Your task to perform on an android device: View the shopping cart on amazon.com. Add panasonic triple a to the cart on amazon.com, then select checkout. Image 0: 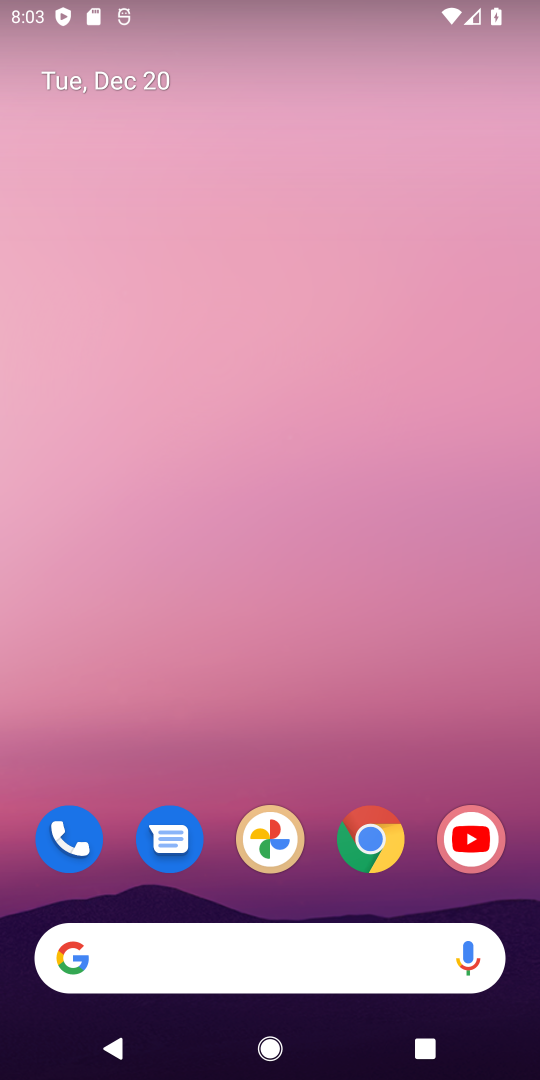
Step 0: click (296, 968)
Your task to perform on an android device: View the shopping cart on amazon.com. Add panasonic triple a to the cart on amazon.com, then select checkout. Image 1: 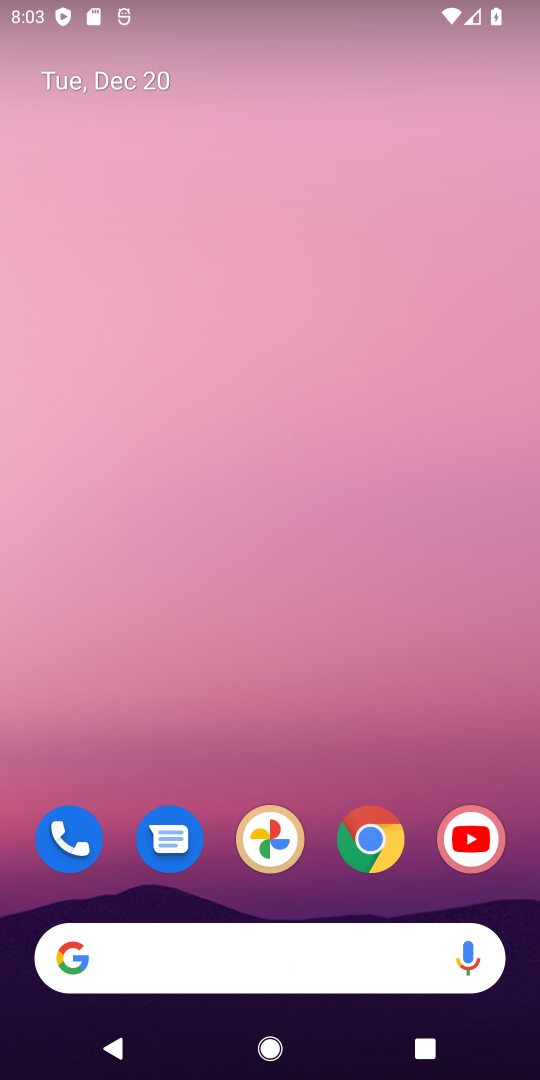
Step 1: click (289, 966)
Your task to perform on an android device: View the shopping cart on amazon.com. Add panasonic triple a to the cart on amazon.com, then select checkout. Image 2: 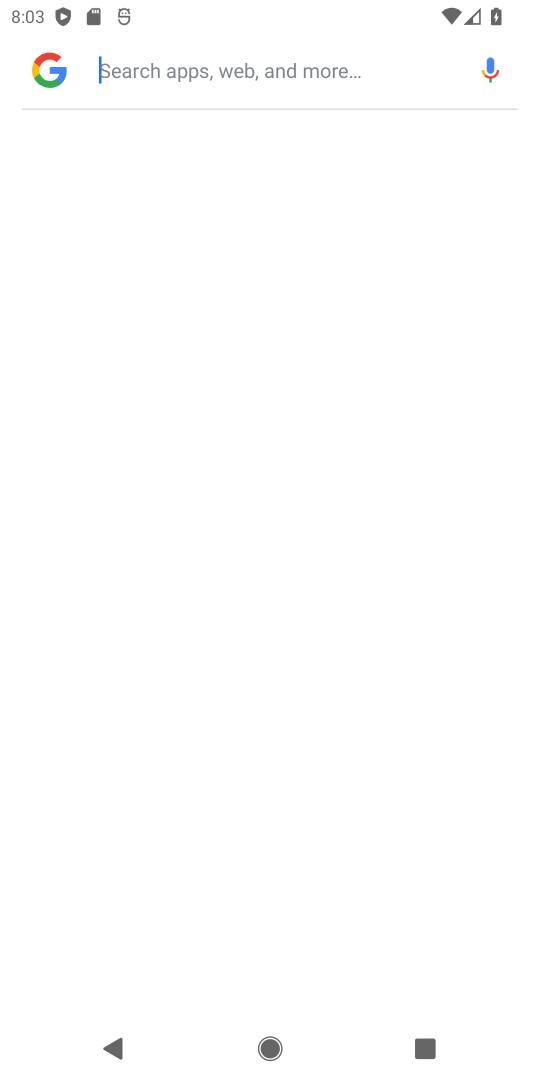
Step 2: click (289, 966)
Your task to perform on an android device: View the shopping cart on amazon.com. Add panasonic triple a to the cart on amazon.com, then select checkout. Image 3: 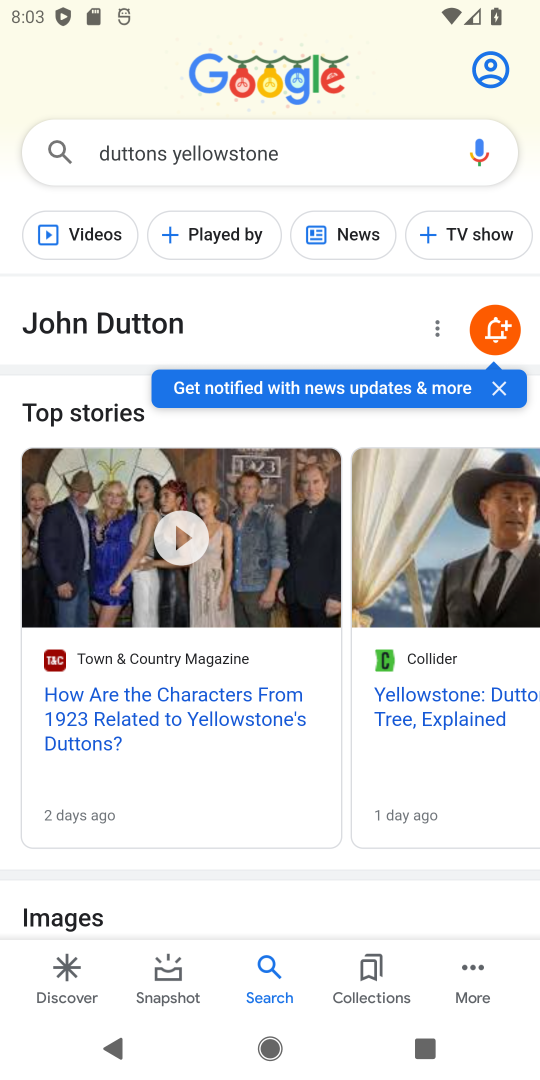
Step 3: type "amazon.com"
Your task to perform on an android device: View the shopping cart on amazon.com. Add panasonic triple a to the cart on amazon.com, then select checkout. Image 4: 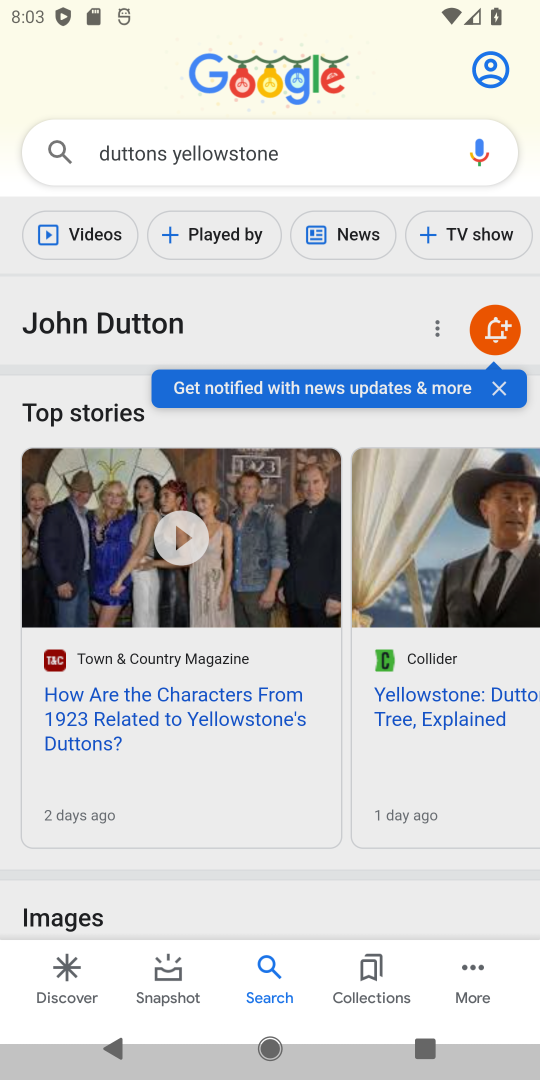
Step 4: type ""
Your task to perform on an android device: View the shopping cart on amazon.com. Add panasonic triple a to the cart on amazon.com, then select checkout. Image 5: 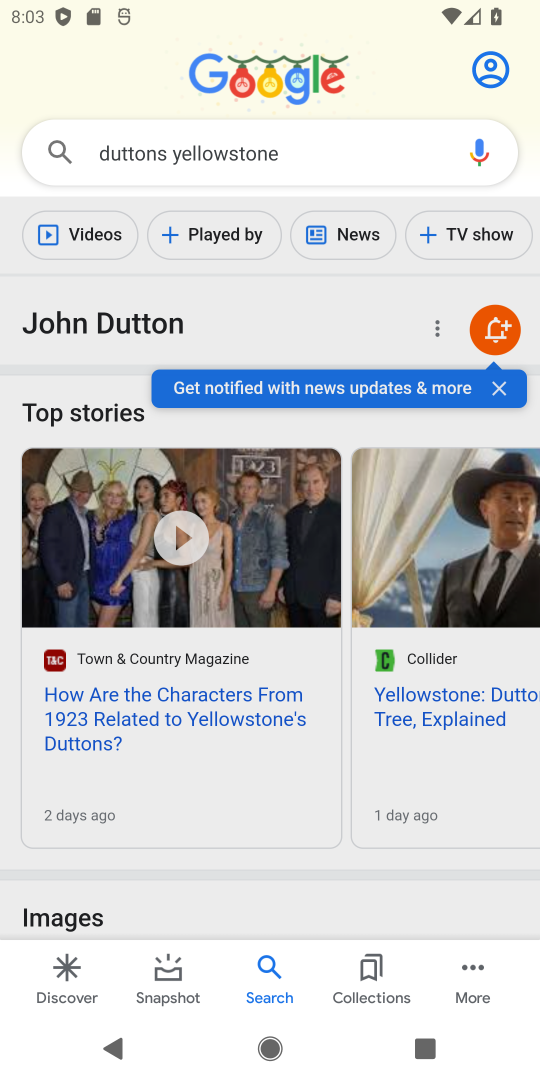
Step 5: click (342, 166)
Your task to perform on an android device: View the shopping cart on amazon.com. Add panasonic triple a to the cart on amazon.com, then select checkout. Image 6: 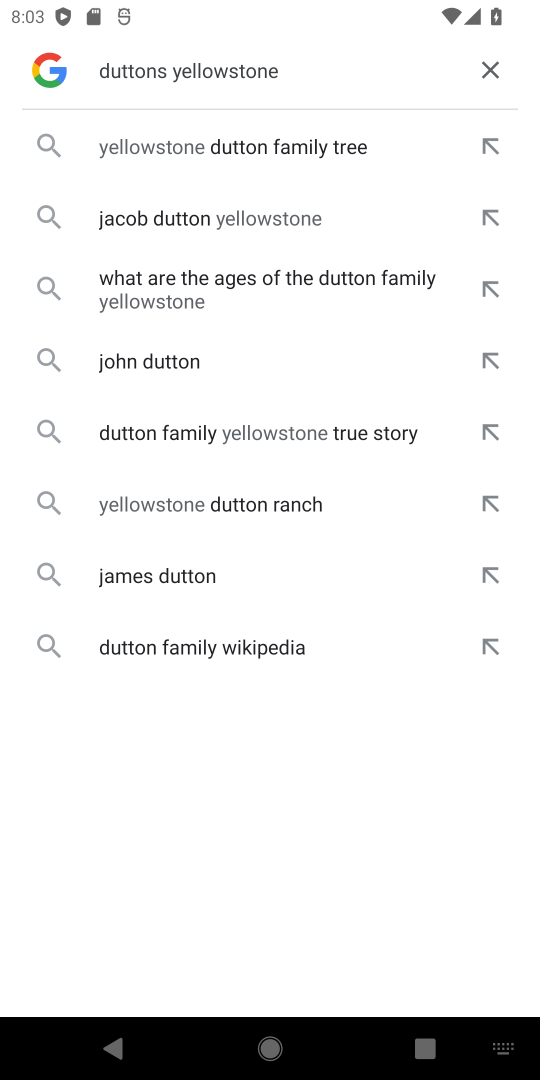
Step 6: click (492, 81)
Your task to perform on an android device: View the shopping cart on amazon.com. Add panasonic triple a to the cart on amazon.com, then select checkout. Image 7: 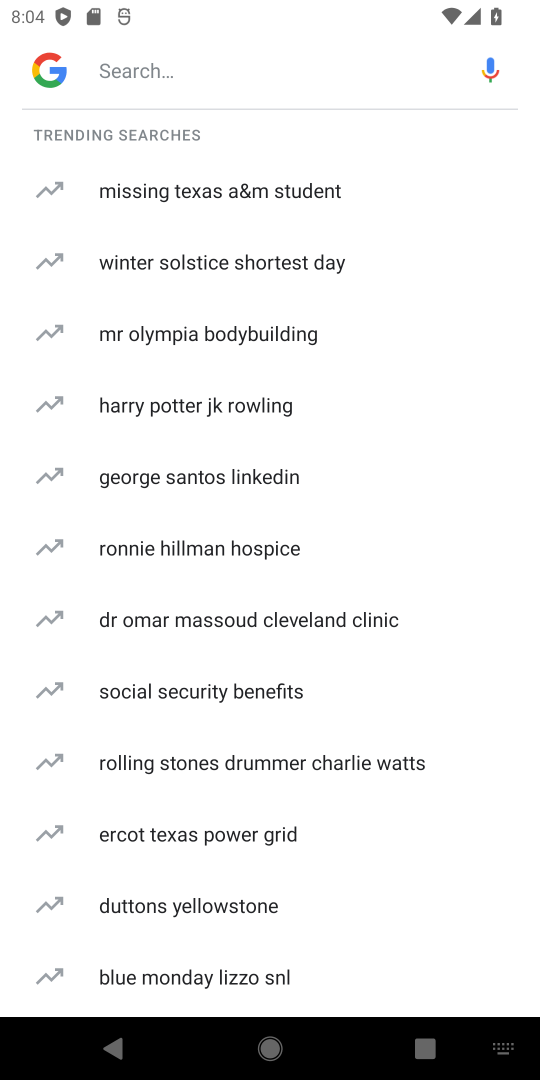
Step 7: type "amazon.com"
Your task to perform on an android device: View the shopping cart on amazon.com. Add panasonic triple a to the cart on amazon.com, then select checkout. Image 8: 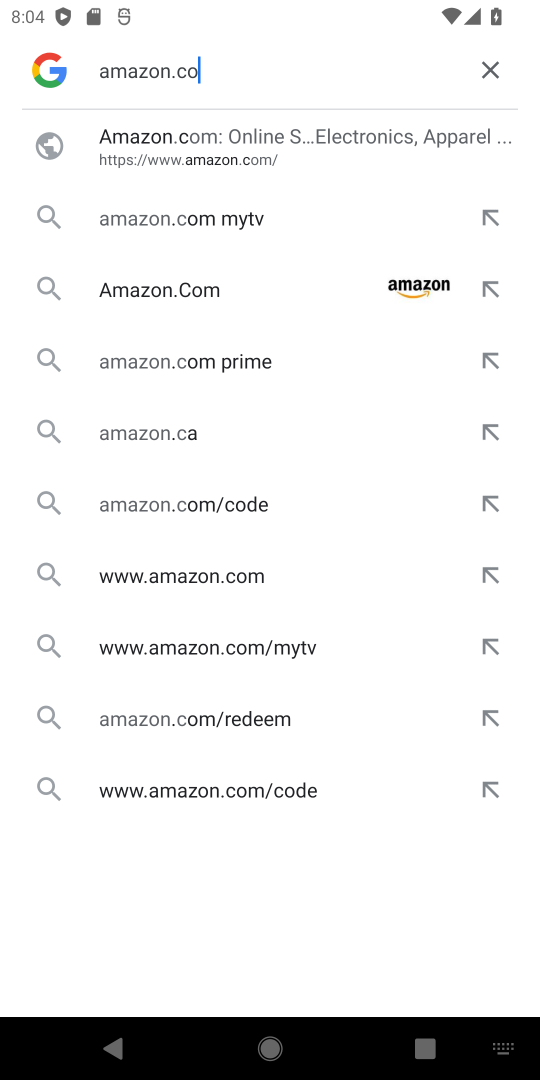
Step 8: type ""
Your task to perform on an android device: View the shopping cart on amazon.com. Add panasonic triple a to the cart on amazon.com, then select checkout. Image 9: 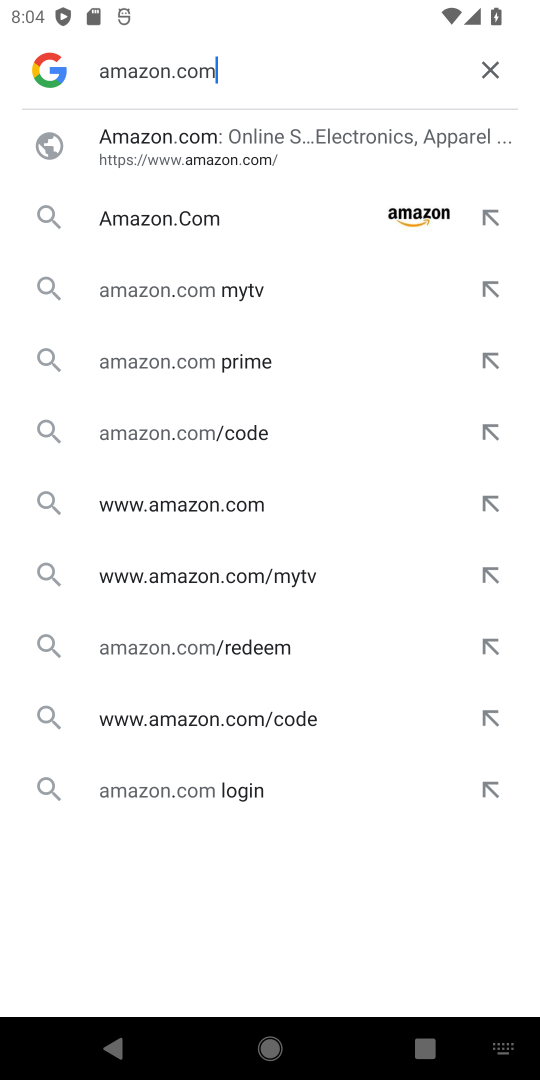
Step 9: click (171, 225)
Your task to perform on an android device: View the shopping cart on amazon.com. Add panasonic triple a to the cart on amazon.com, then select checkout. Image 10: 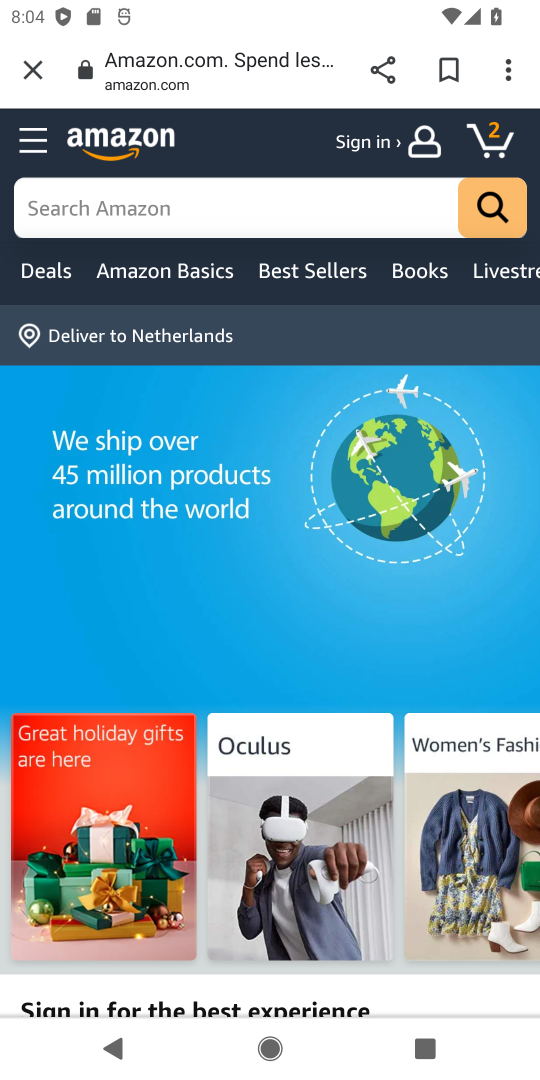
Step 10: drag from (226, 1073) to (467, 752)
Your task to perform on an android device: View the shopping cart on amazon.com. Add panasonic triple a to the cart on amazon.com, then select checkout. Image 11: 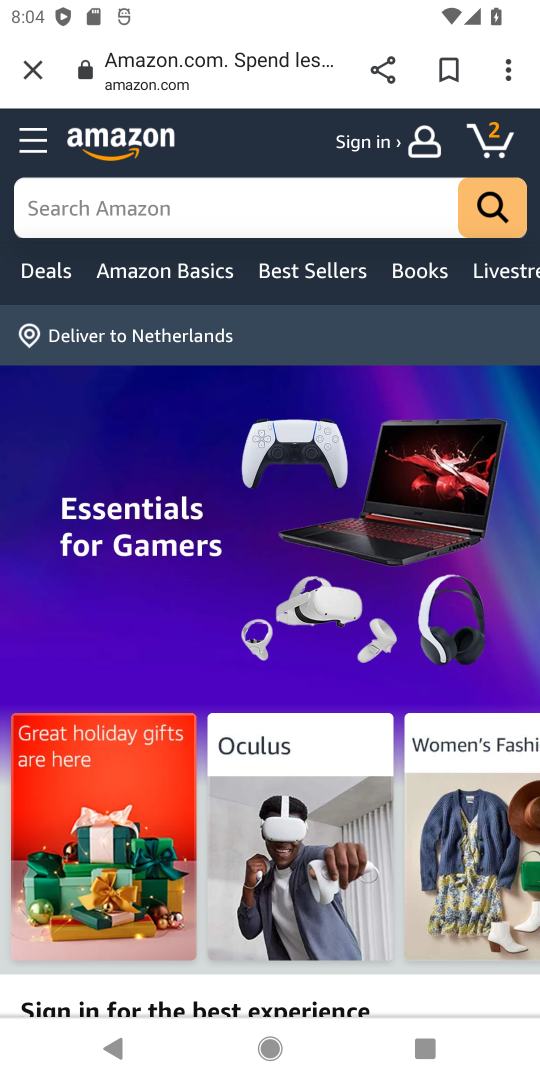
Step 11: click (275, 532)
Your task to perform on an android device: View the shopping cart on amazon.com. Add panasonic triple a to the cart on amazon.com, then select checkout. Image 12: 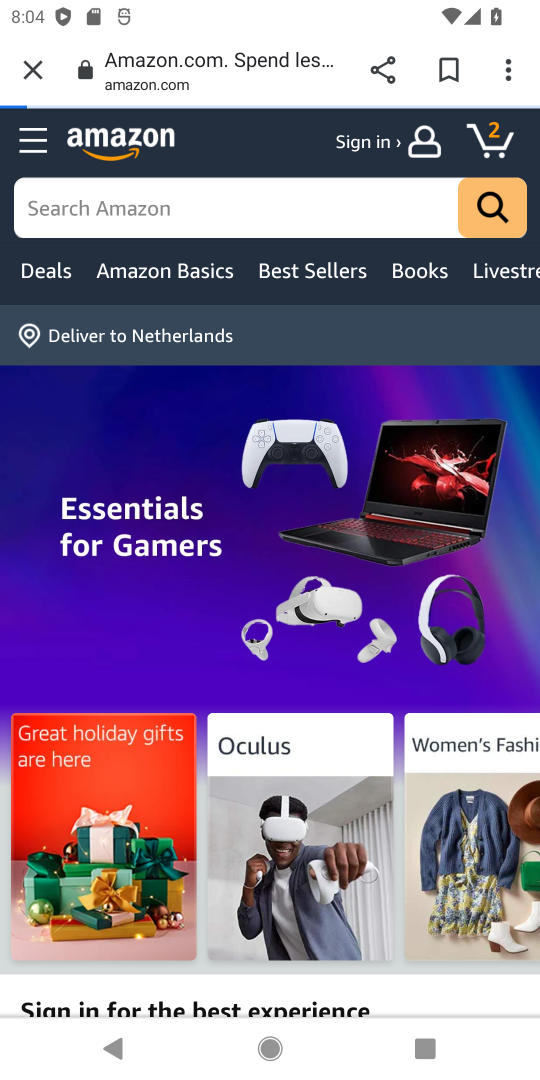
Step 12: click (135, 209)
Your task to perform on an android device: View the shopping cart on amazon.com. Add panasonic triple a to the cart on amazon.com, then select checkout. Image 13: 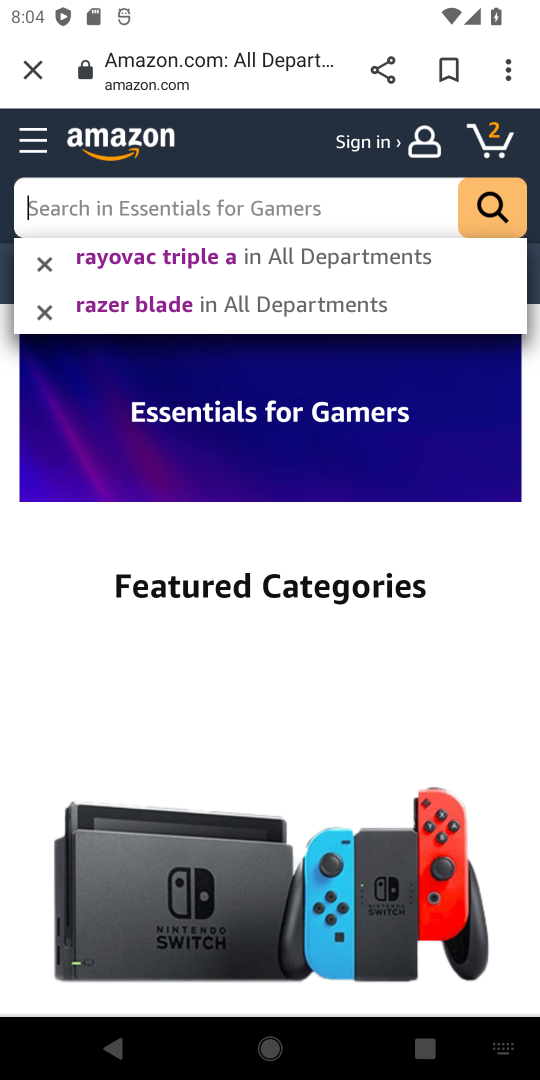
Step 13: type "panasonic triple a"
Your task to perform on an android device: View the shopping cart on amazon.com. Add panasonic triple a to the cart on amazon.com, then select checkout. Image 14: 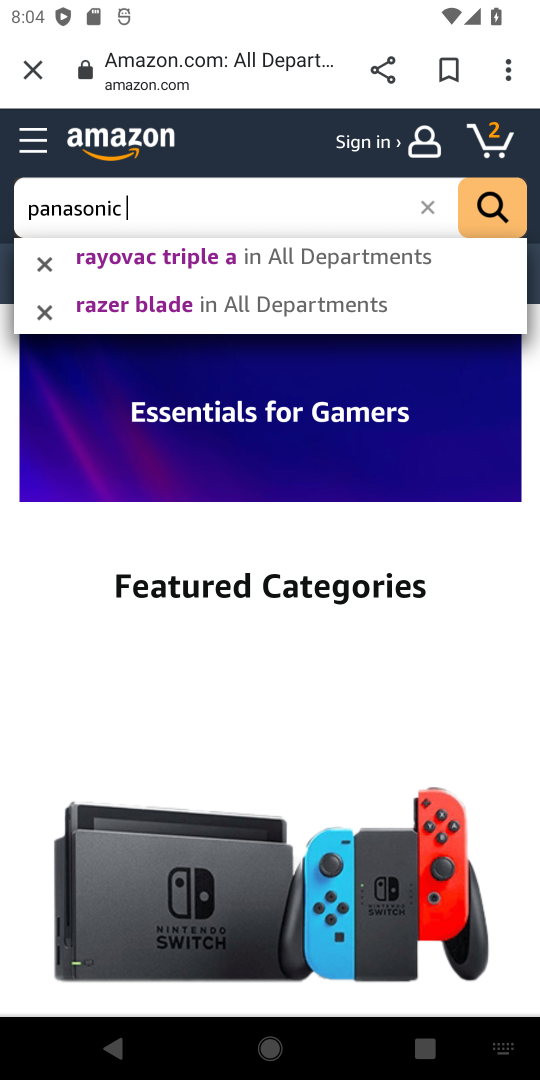
Step 14: type ""
Your task to perform on an android device: View the shopping cart on amazon.com. Add panasonic triple a to the cart on amazon.com, then select checkout. Image 15: 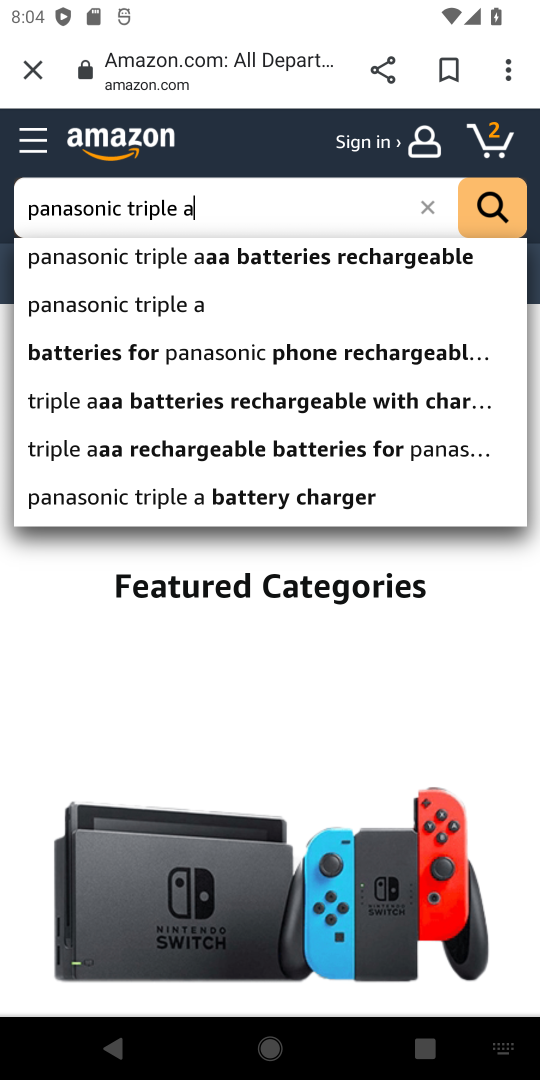
Step 15: click (113, 305)
Your task to perform on an android device: View the shopping cart on amazon.com. Add panasonic triple a to the cart on amazon.com, then select checkout. Image 16: 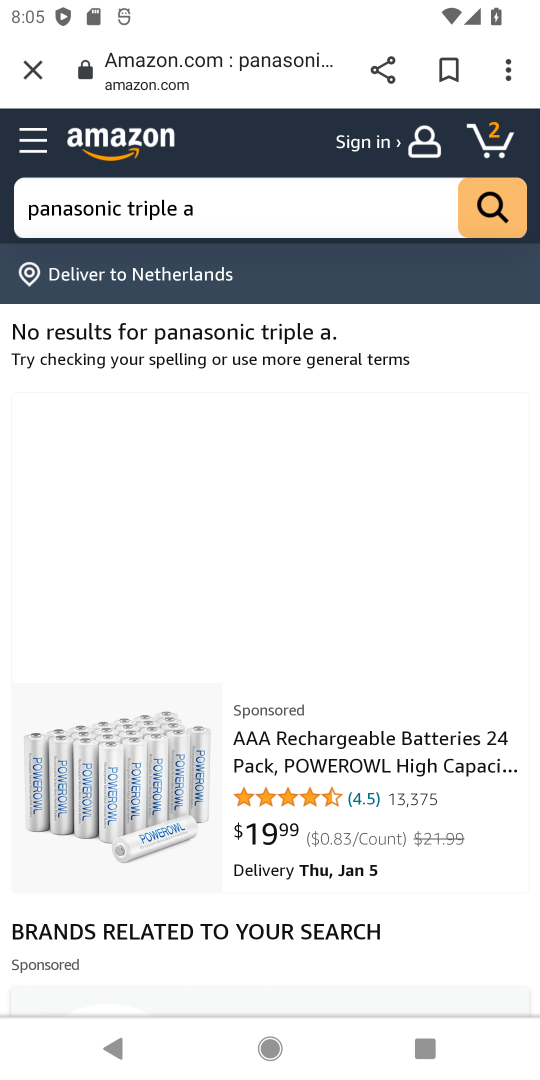
Step 16: drag from (362, 944) to (273, 357)
Your task to perform on an android device: View the shopping cart on amazon.com. Add panasonic triple a to the cart on amazon.com, then select checkout. Image 17: 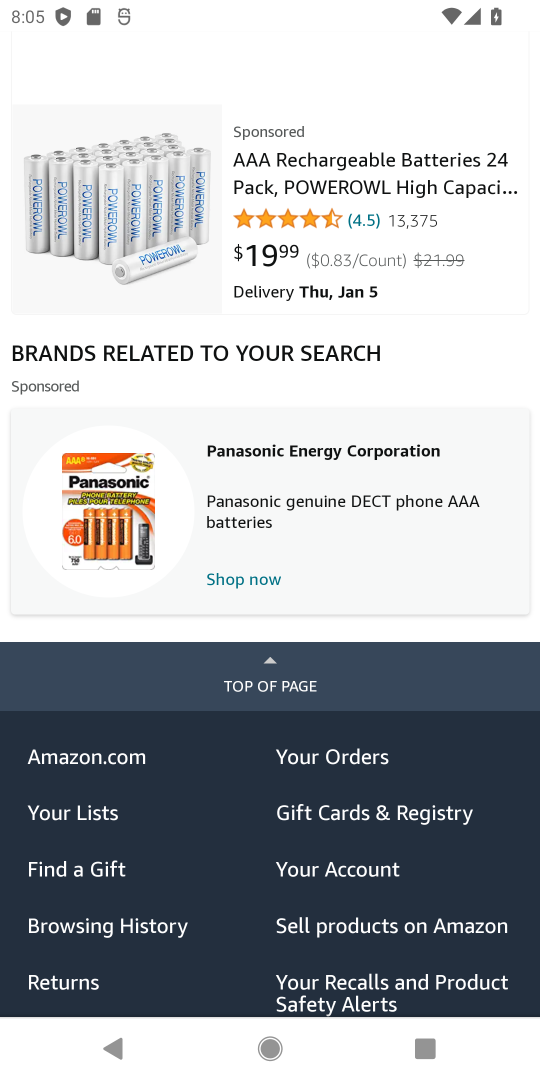
Step 17: click (382, 227)
Your task to perform on an android device: View the shopping cart on amazon.com. Add panasonic triple a to the cart on amazon.com, then select checkout. Image 18: 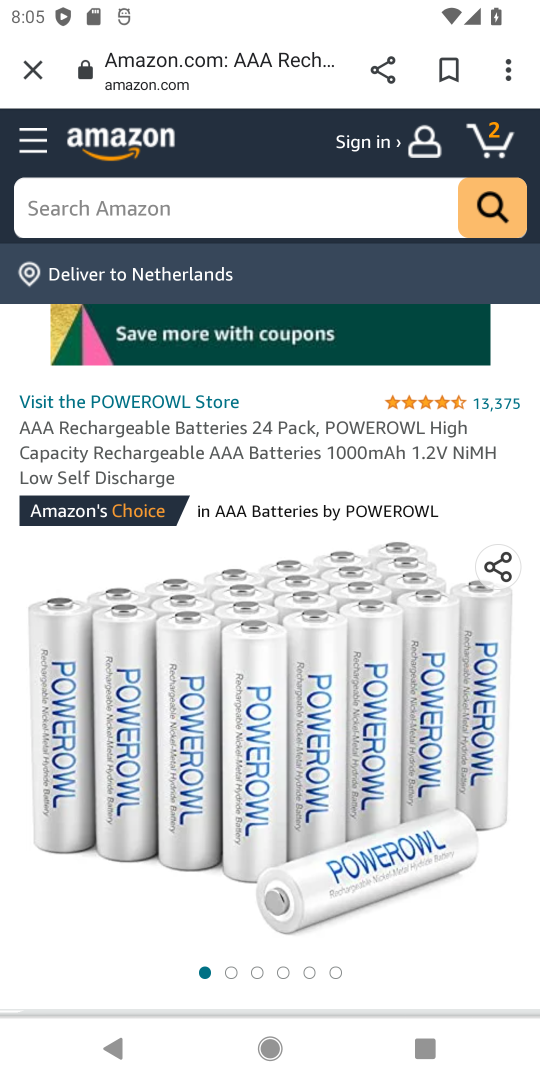
Step 18: task complete